Your task to perform on an android device: toggle notification dots Image 0: 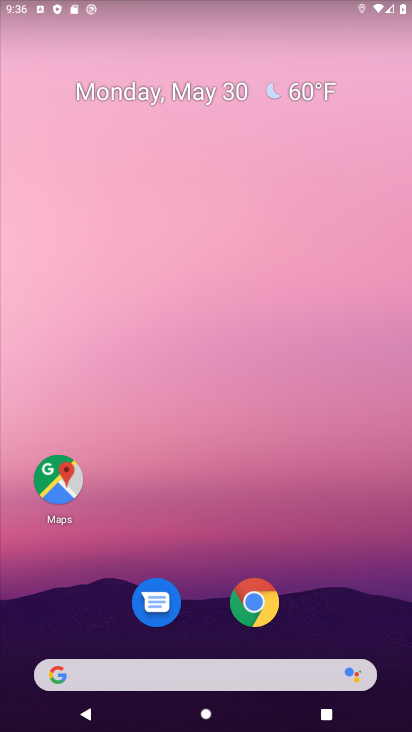
Step 0: drag from (201, 570) to (191, 177)
Your task to perform on an android device: toggle notification dots Image 1: 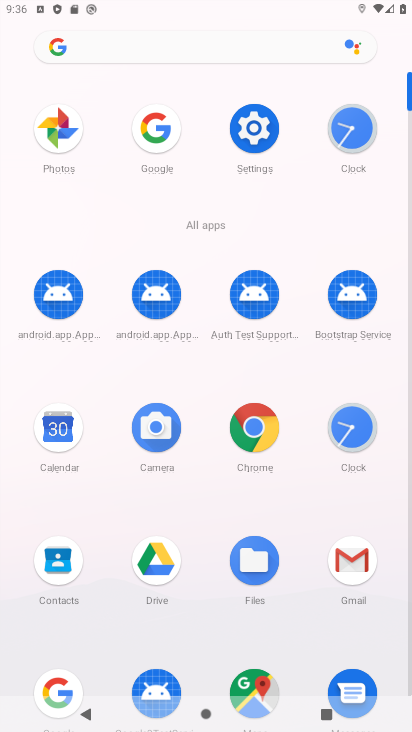
Step 1: click (234, 134)
Your task to perform on an android device: toggle notification dots Image 2: 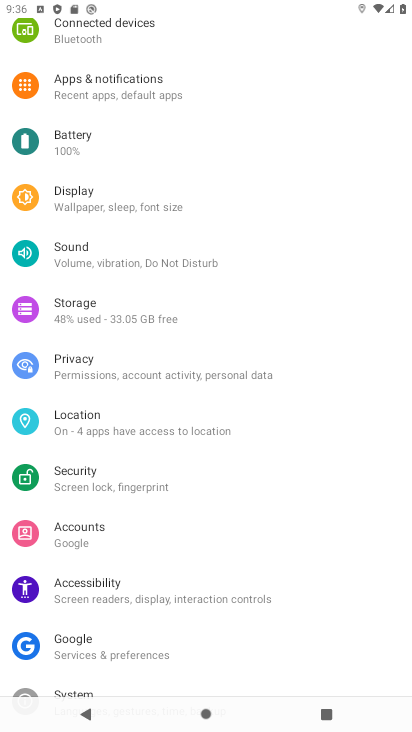
Step 2: drag from (133, 244) to (133, 466)
Your task to perform on an android device: toggle notification dots Image 3: 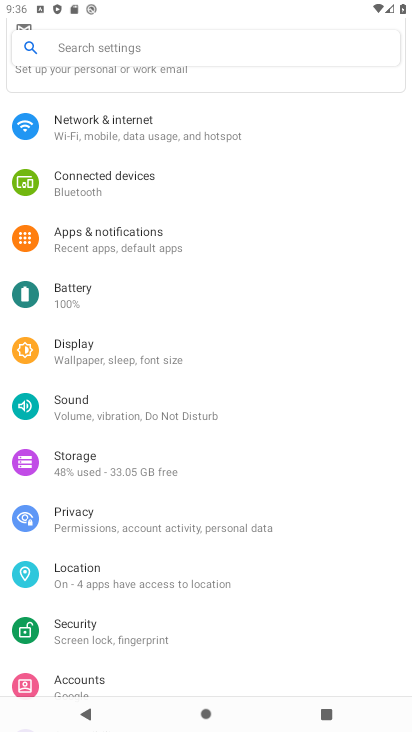
Step 3: click (165, 228)
Your task to perform on an android device: toggle notification dots Image 4: 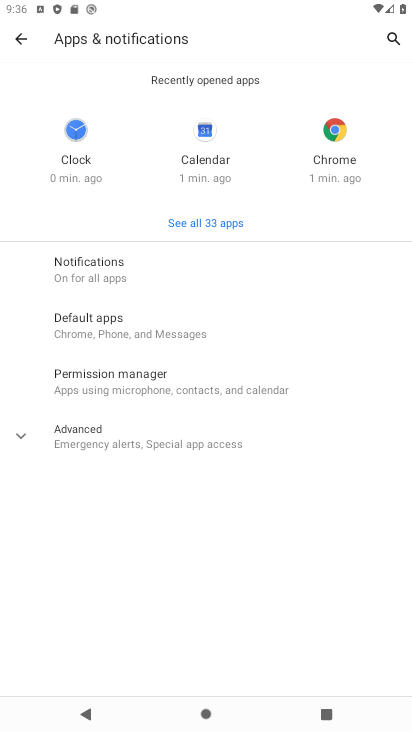
Step 4: click (156, 276)
Your task to perform on an android device: toggle notification dots Image 5: 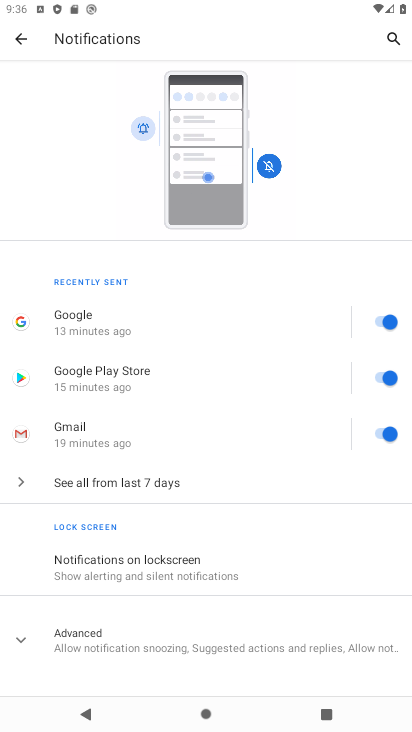
Step 5: drag from (174, 593) to (136, 240)
Your task to perform on an android device: toggle notification dots Image 6: 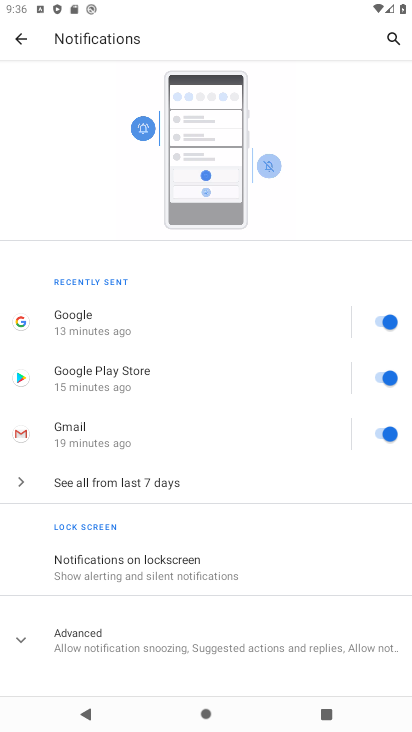
Step 6: click (159, 652)
Your task to perform on an android device: toggle notification dots Image 7: 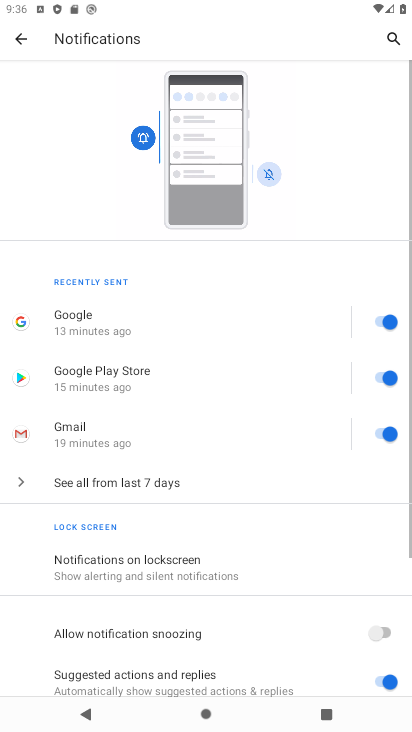
Step 7: click (163, 262)
Your task to perform on an android device: toggle notification dots Image 8: 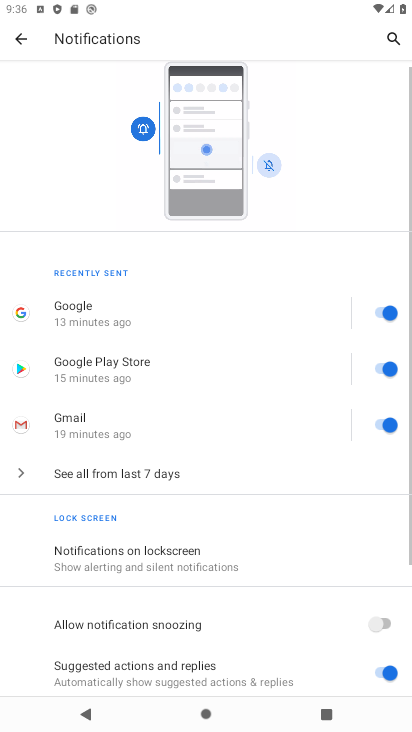
Step 8: drag from (174, 501) to (185, 242)
Your task to perform on an android device: toggle notification dots Image 9: 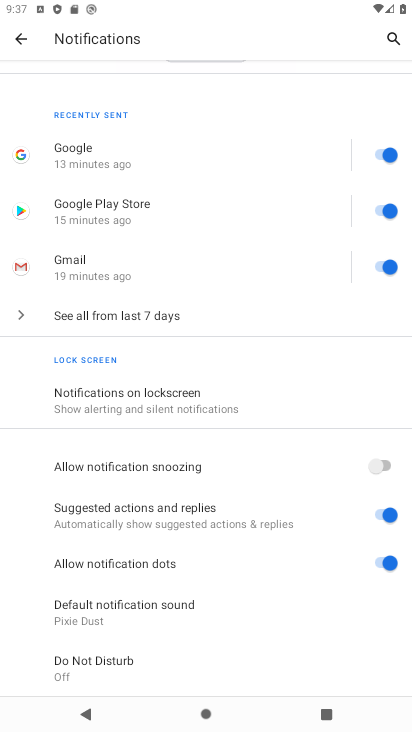
Step 9: click (382, 567)
Your task to perform on an android device: toggle notification dots Image 10: 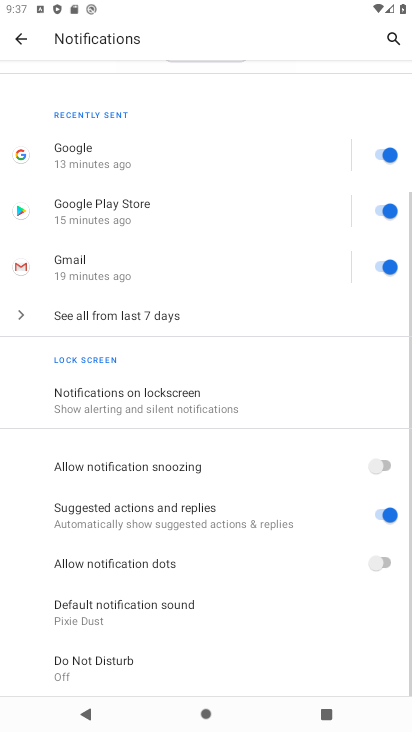
Step 10: task complete